Your task to perform on an android device: Turn off the flashlight Image 0: 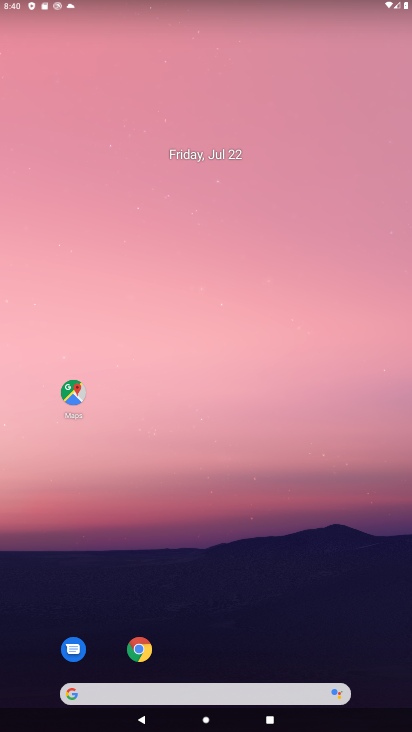
Step 0: drag from (253, 542) to (281, 172)
Your task to perform on an android device: Turn off the flashlight Image 1: 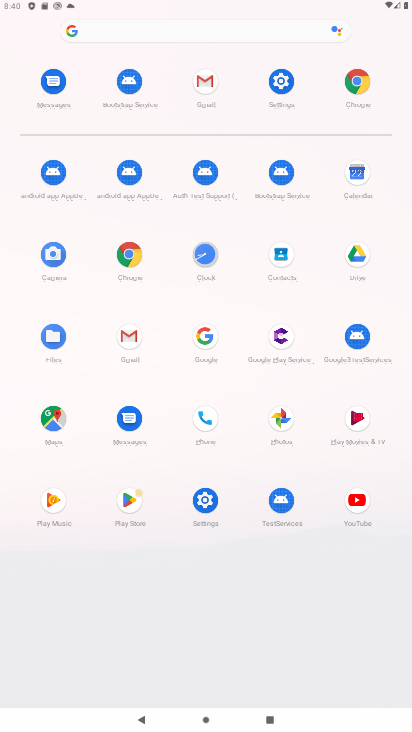
Step 1: task complete